Your task to perform on an android device: Open Google Image 0: 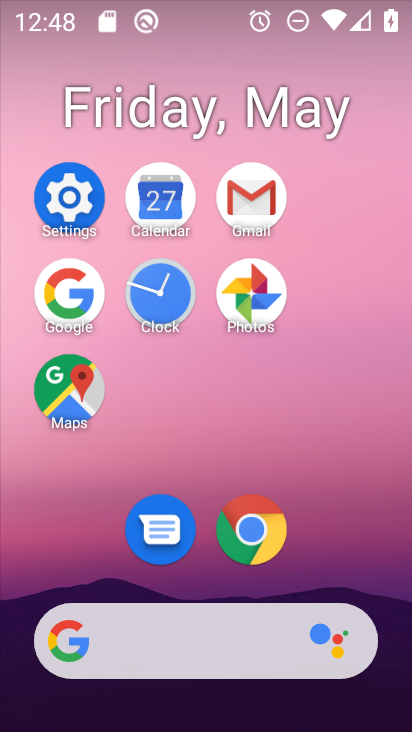
Step 0: click (95, 316)
Your task to perform on an android device: Open Google Image 1: 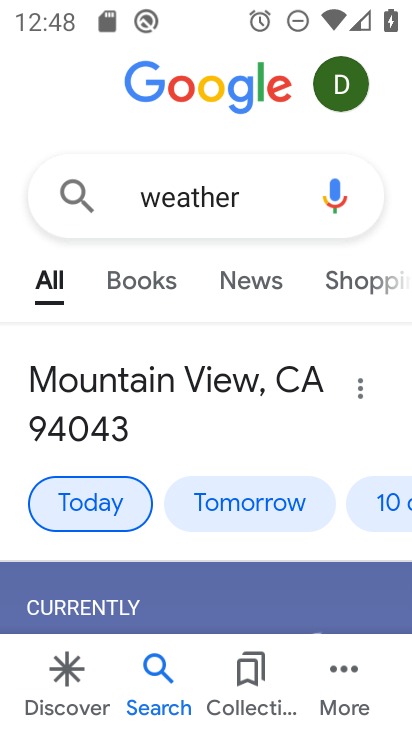
Step 1: task complete